Your task to perform on an android device: check the backup settings in the google photos Image 0: 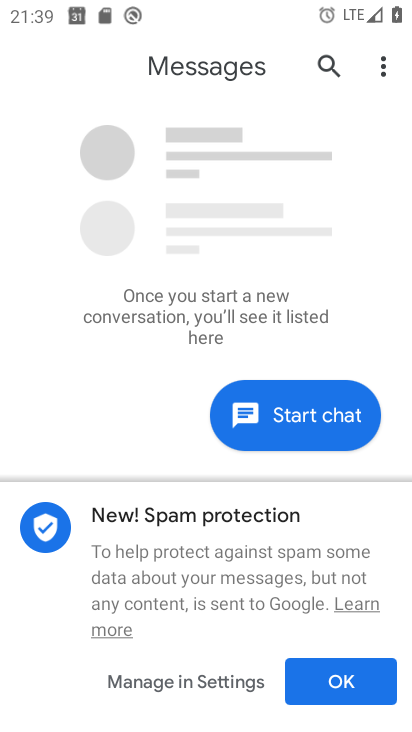
Step 0: press home button
Your task to perform on an android device: check the backup settings in the google photos Image 1: 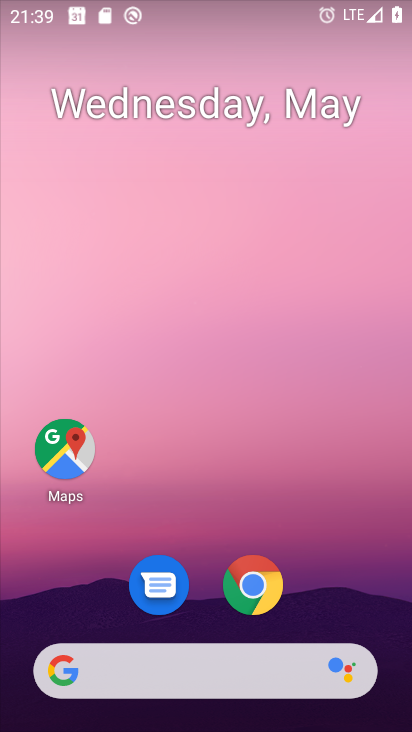
Step 1: drag from (358, 581) to (353, 87)
Your task to perform on an android device: check the backup settings in the google photos Image 2: 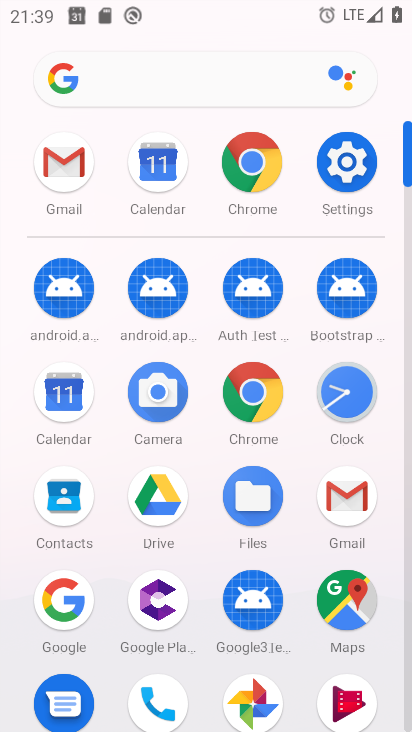
Step 2: drag from (303, 560) to (299, 407)
Your task to perform on an android device: check the backup settings in the google photos Image 3: 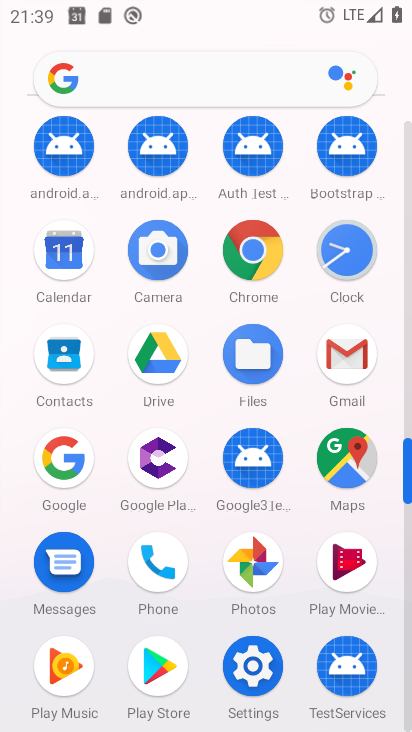
Step 3: click (259, 559)
Your task to perform on an android device: check the backup settings in the google photos Image 4: 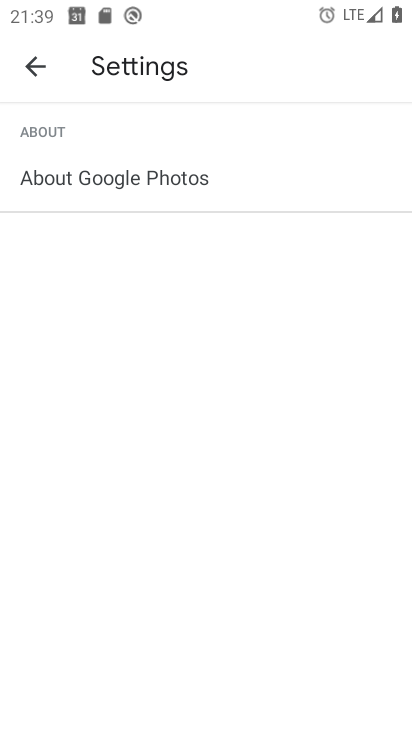
Step 4: click (27, 59)
Your task to perform on an android device: check the backup settings in the google photos Image 5: 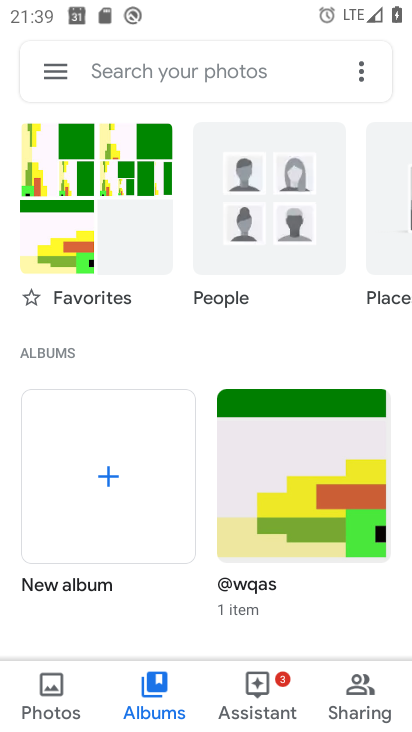
Step 5: click (52, 68)
Your task to perform on an android device: check the backup settings in the google photos Image 6: 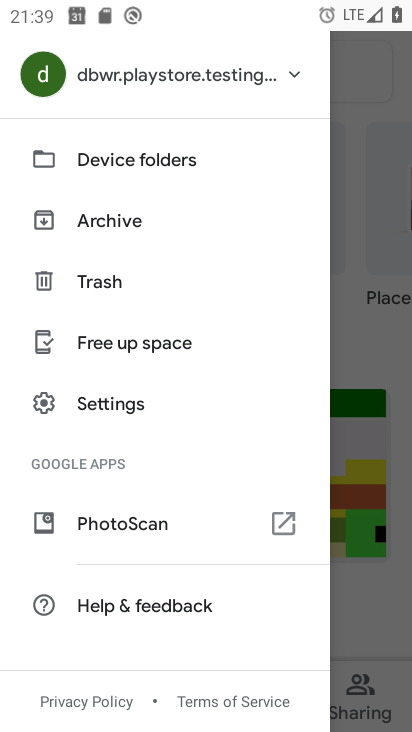
Step 6: click (141, 406)
Your task to perform on an android device: check the backup settings in the google photos Image 7: 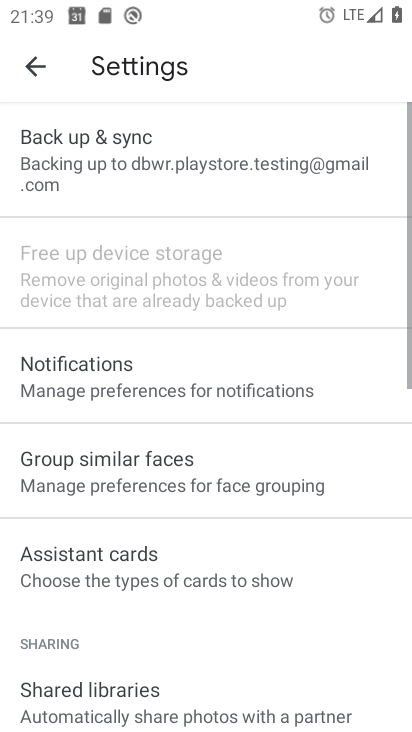
Step 7: click (176, 134)
Your task to perform on an android device: check the backup settings in the google photos Image 8: 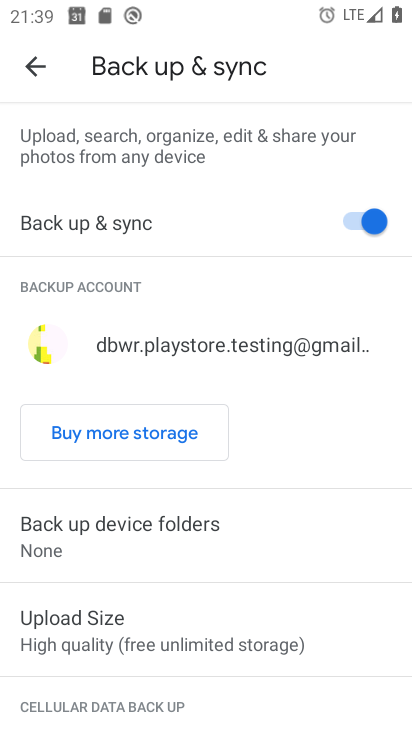
Step 8: task complete